Your task to perform on an android device: add a contact in the contacts app Image 0: 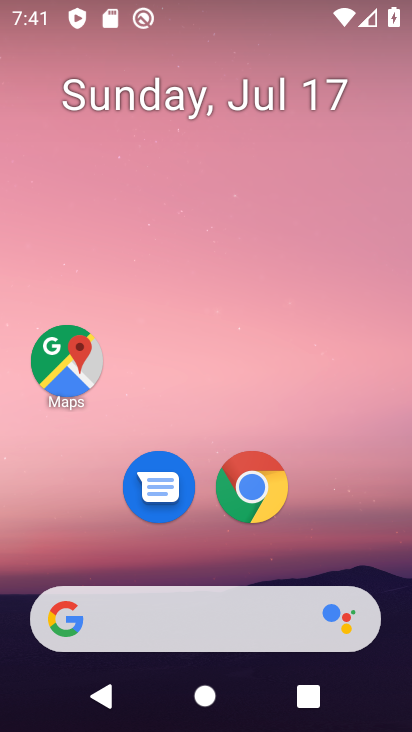
Step 0: drag from (169, 571) to (280, 11)
Your task to perform on an android device: add a contact in the contacts app Image 1: 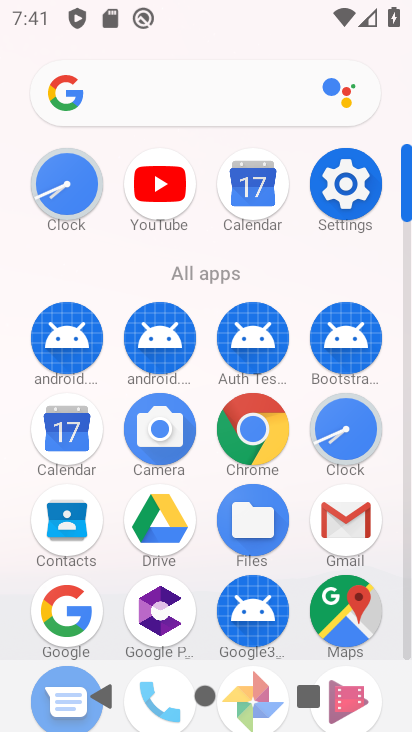
Step 1: click (58, 535)
Your task to perform on an android device: add a contact in the contacts app Image 2: 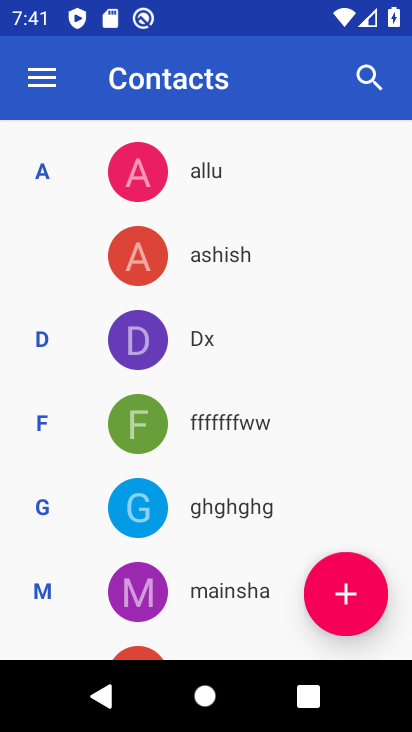
Step 2: click (333, 581)
Your task to perform on an android device: add a contact in the contacts app Image 3: 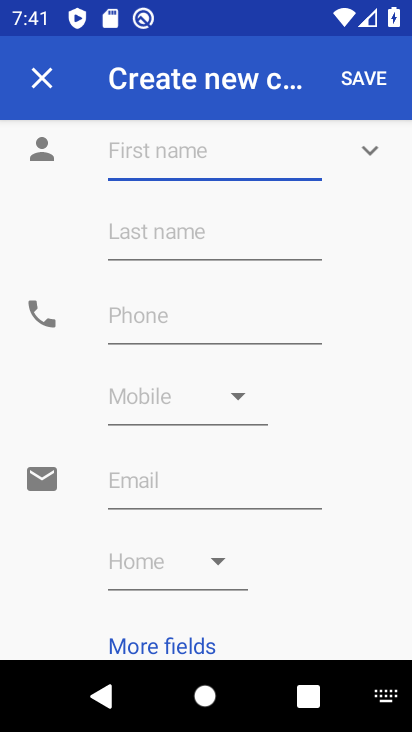
Step 3: click (151, 147)
Your task to perform on an android device: add a contact in the contacts app Image 4: 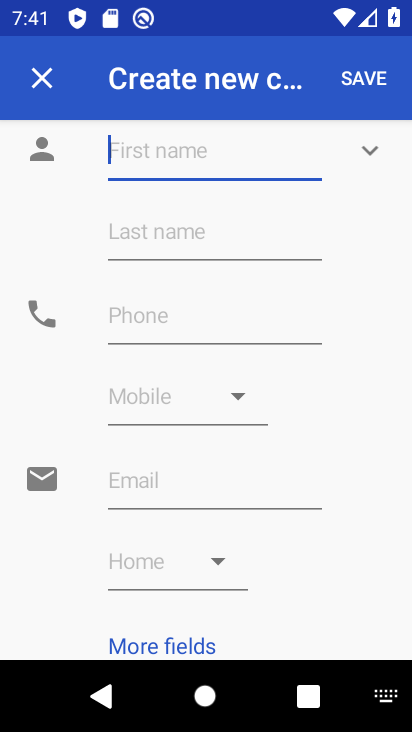
Step 4: type "vdfbdb"
Your task to perform on an android device: add a contact in the contacts app Image 5: 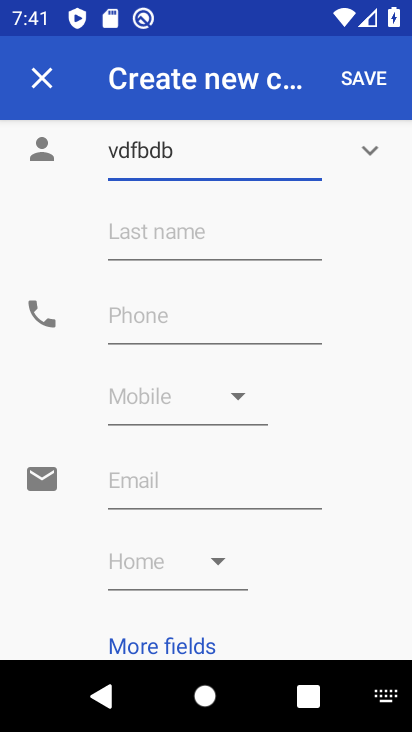
Step 5: click (146, 318)
Your task to perform on an android device: add a contact in the contacts app Image 6: 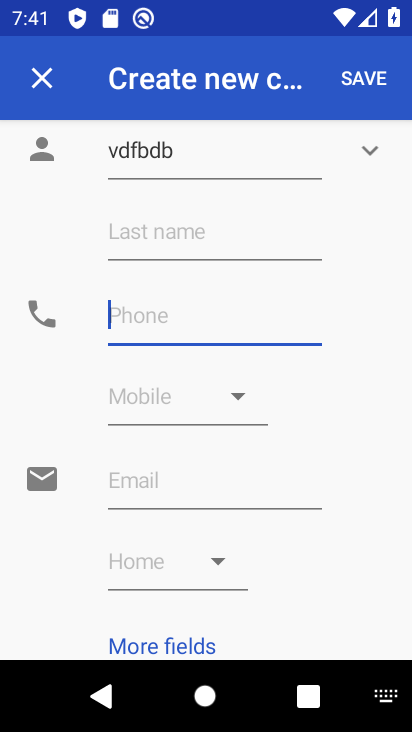
Step 6: type "6887"
Your task to perform on an android device: add a contact in the contacts app Image 7: 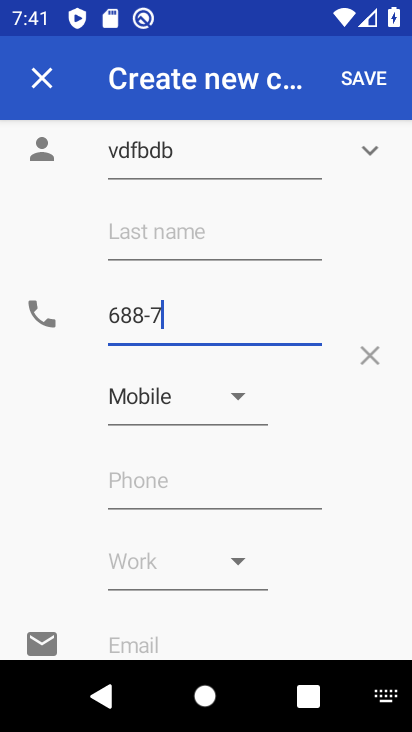
Step 7: click (371, 88)
Your task to perform on an android device: add a contact in the contacts app Image 8: 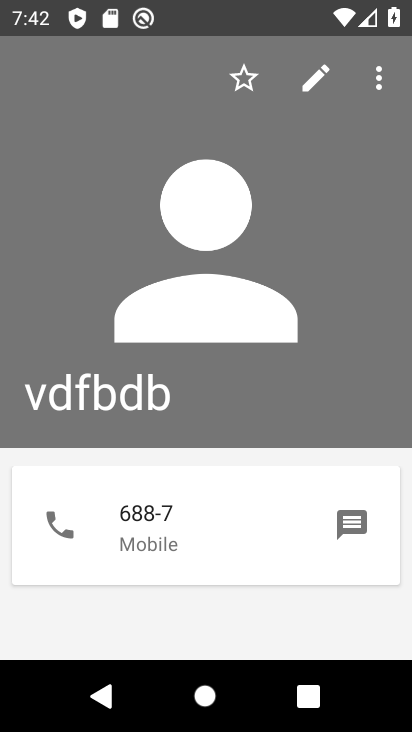
Step 8: task complete